Your task to perform on an android device: Open Google Image 0: 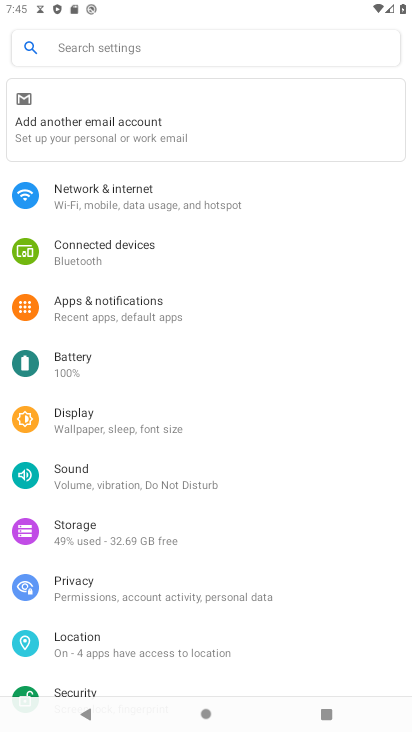
Step 0: press home button
Your task to perform on an android device: Open Google Image 1: 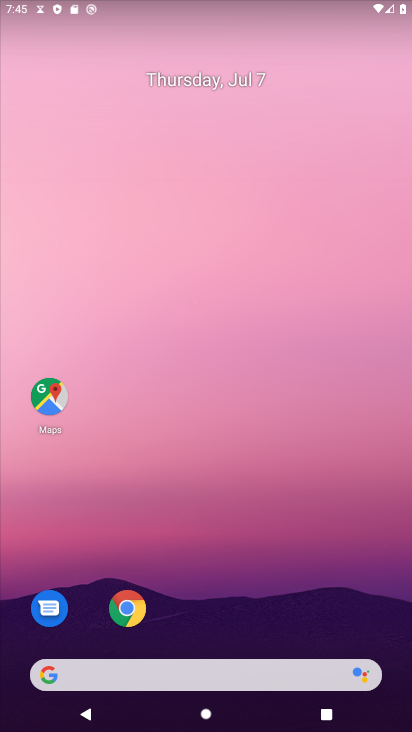
Step 1: drag from (251, 607) to (255, 186)
Your task to perform on an android device: Open Google Image 2: 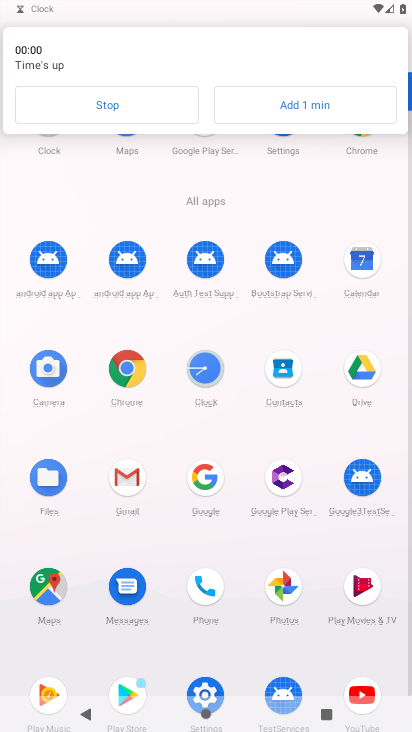
Step 2: click (209, 472)
Your task to perform on an android device: Open Google Image 3: 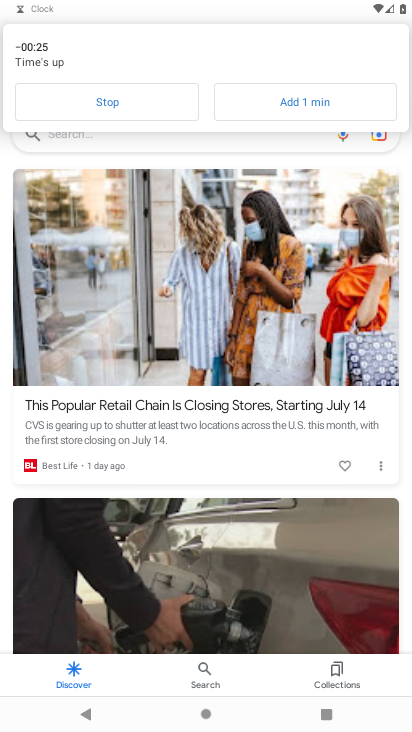
Step 3: task complete